Your task to perform on an android device: Show me popular games on the Play Store Image 0: 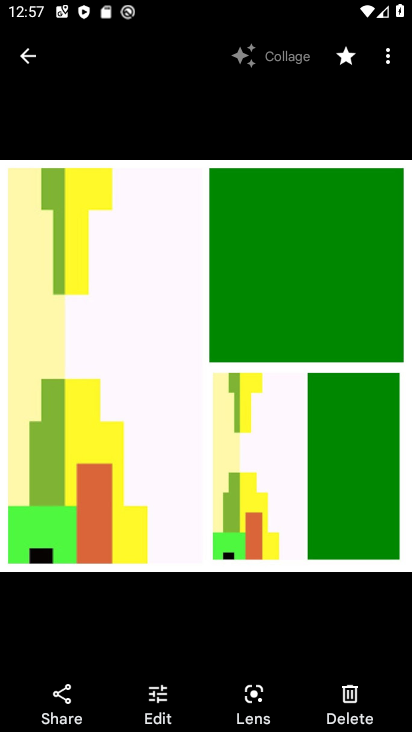
Step 0: press back button
Your task to perform on an android device: Show me popular games on the Play Store Image 1: 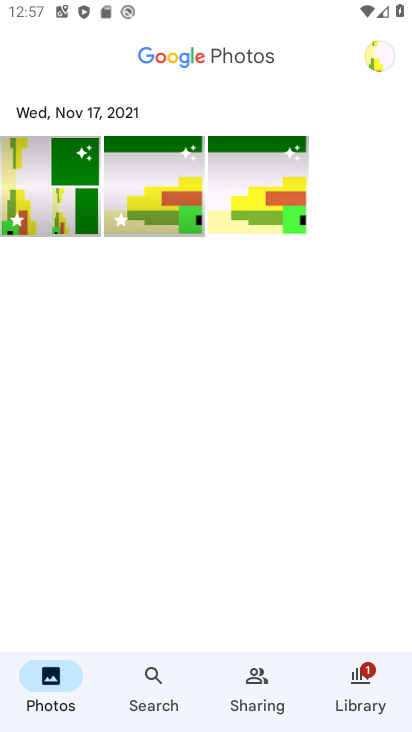
Step 1: press back button
Your task to perform on an android device: Show me popular games on the Play Store Image 2: 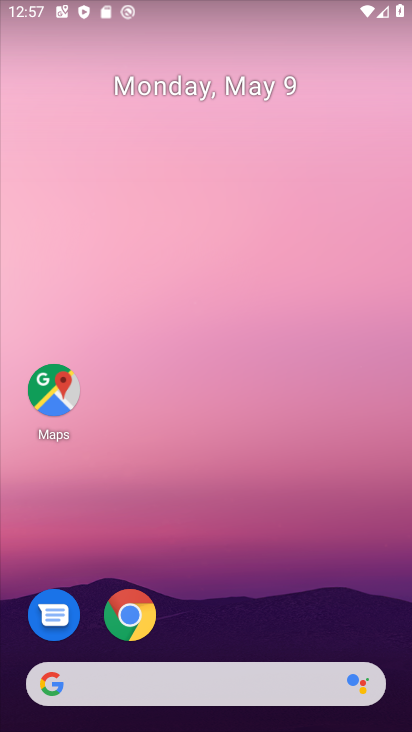
Step 2: drag from (275, 600) to (256, 112)
Your task to perform on an android device: Show me popular games on the Play Store Image 3: 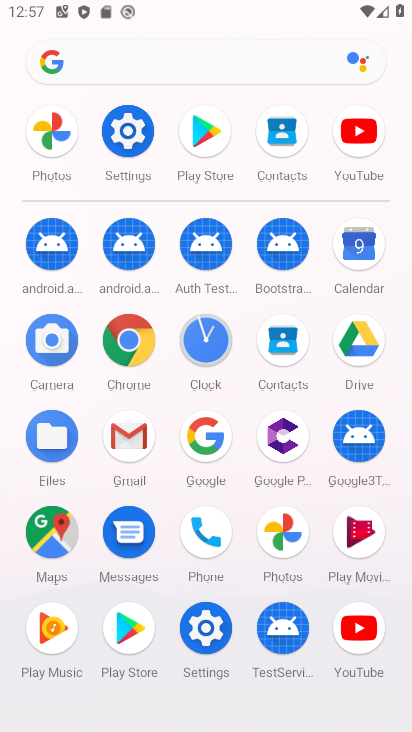
Step 3: click (131, 627)
Your task to perform on an android device: Show me popular games on the Play Store Image 4: 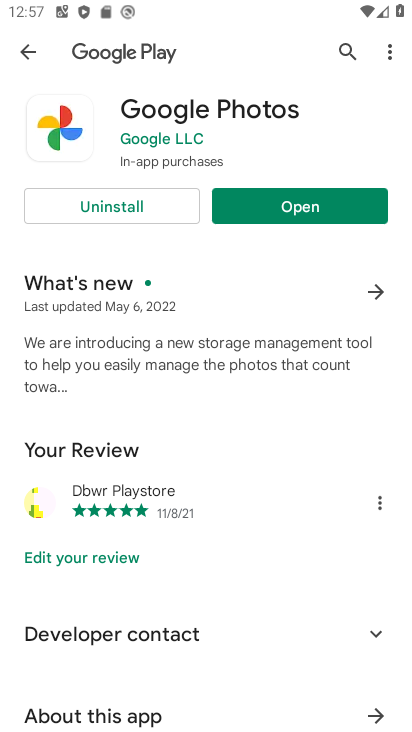
Step 4: press back button
Your task to perform on an android device: Show me popular games on the Play Store Image 5: 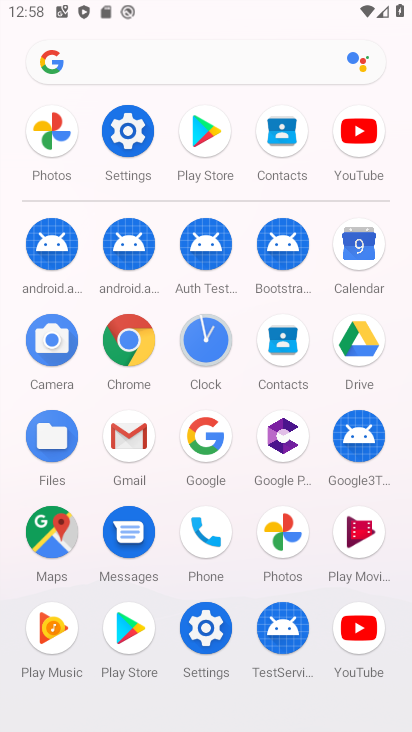
Step 5: click (130, 627)
Your task to perform on an android device: Show me popular games on the Play Store Image 6: 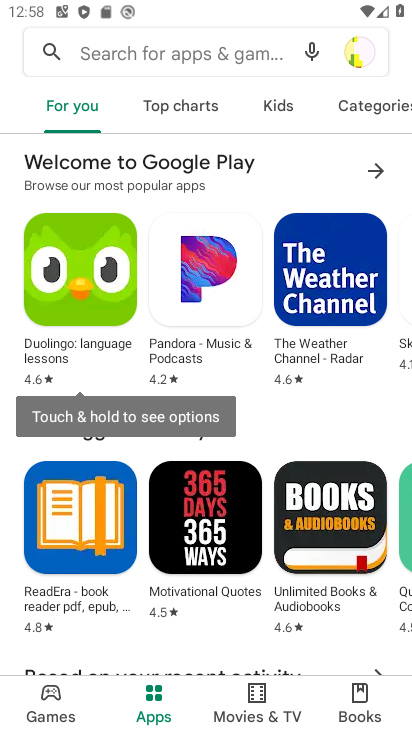
Step 6: click (49, 688)
Your task to perform on an android device: Show me popular games on the Play Store Image 7: 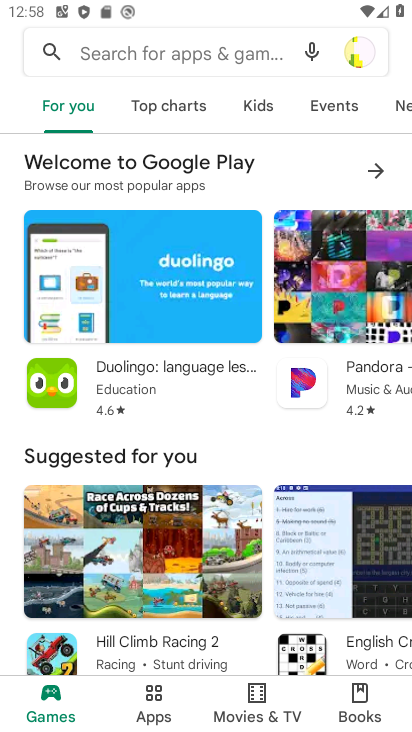
Step 7: click (246, 43)
Your task to perform on an android device: Show me popular games on the Play Store Image 8: 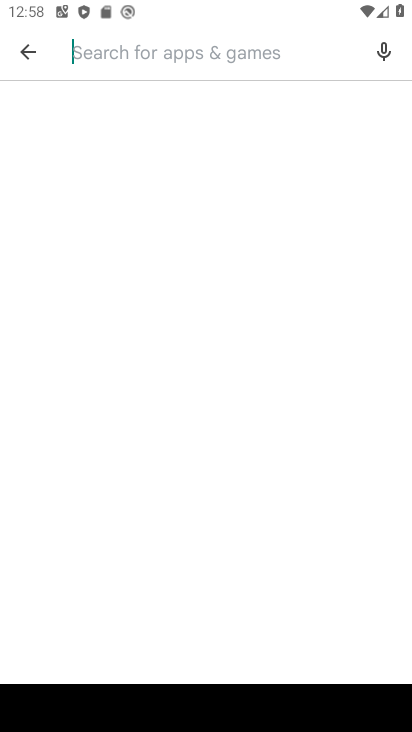
Step 8: type "popular games"
Your task to perform on an android device: Show me popular games on the Play Store Image 9: 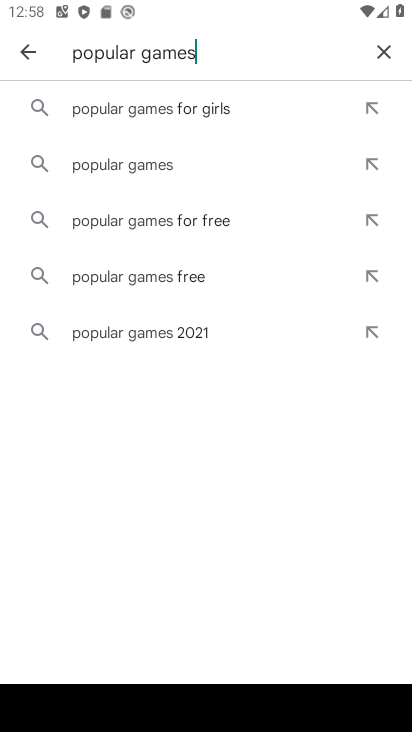
Step 9: click (159, 165)
Your task to perform on an android device: Show me popular games on the Play Store Image 10: 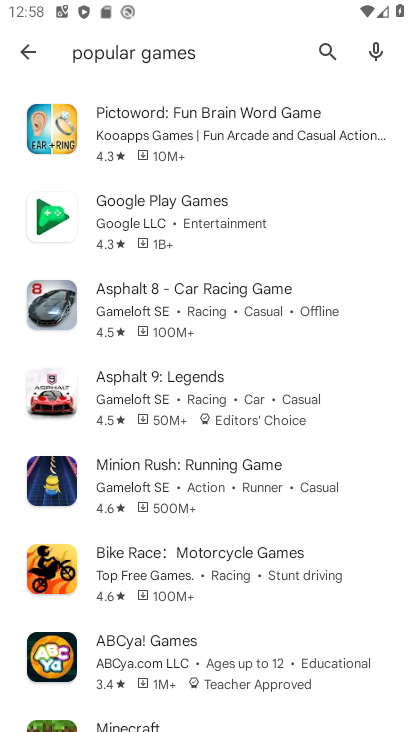
Step 10: task complete